Your task to perform on an android device: add a label to a message in the gmail app Image 0: 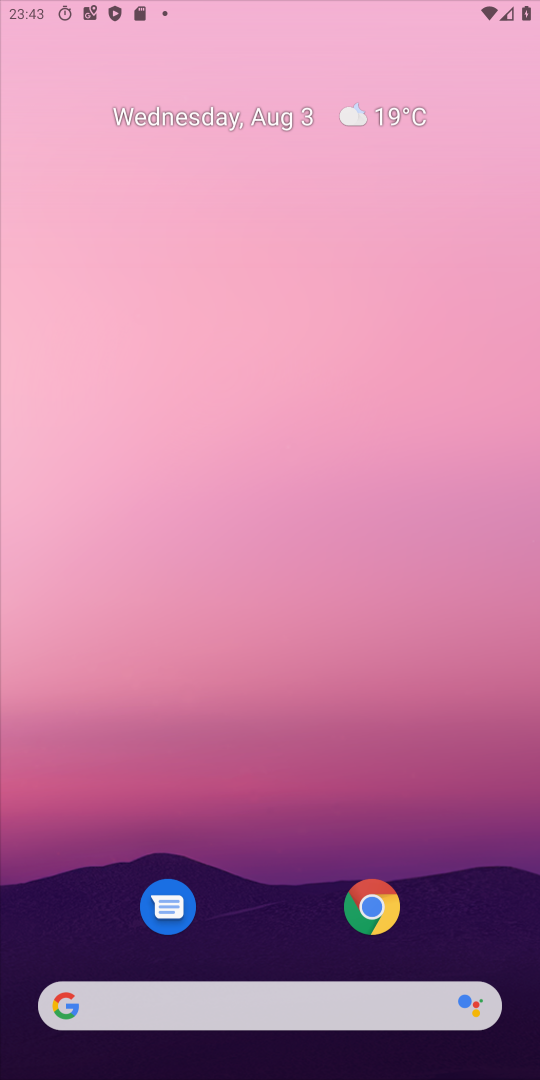
Step 0: press home button
Your task to perform on an android device: add a label to a message in the gmail app Image 1: 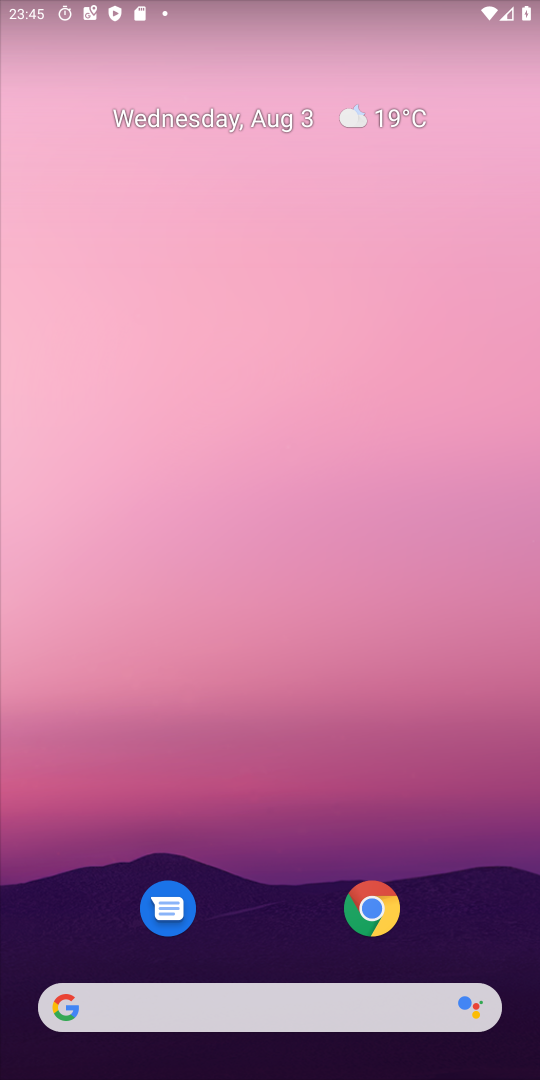
Step 1: drag from (405, 1026) to (304, 361)
Your task to perform on an android device: add a label to a message in the gmail app Image 2: 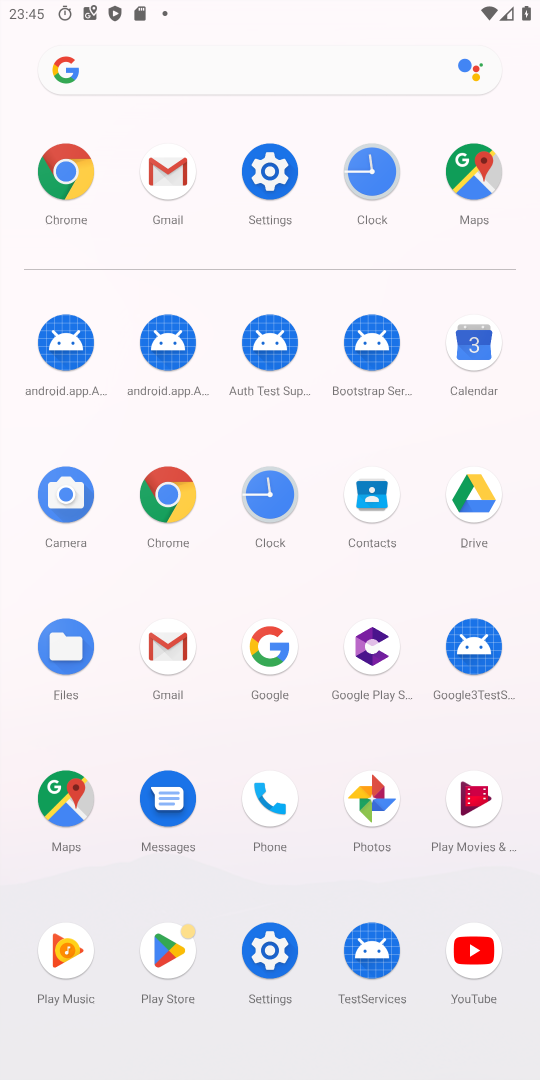
Step 2: click (139, 643)
Your task to perform on an android device: add a label to a message in the gmail app Image 3: 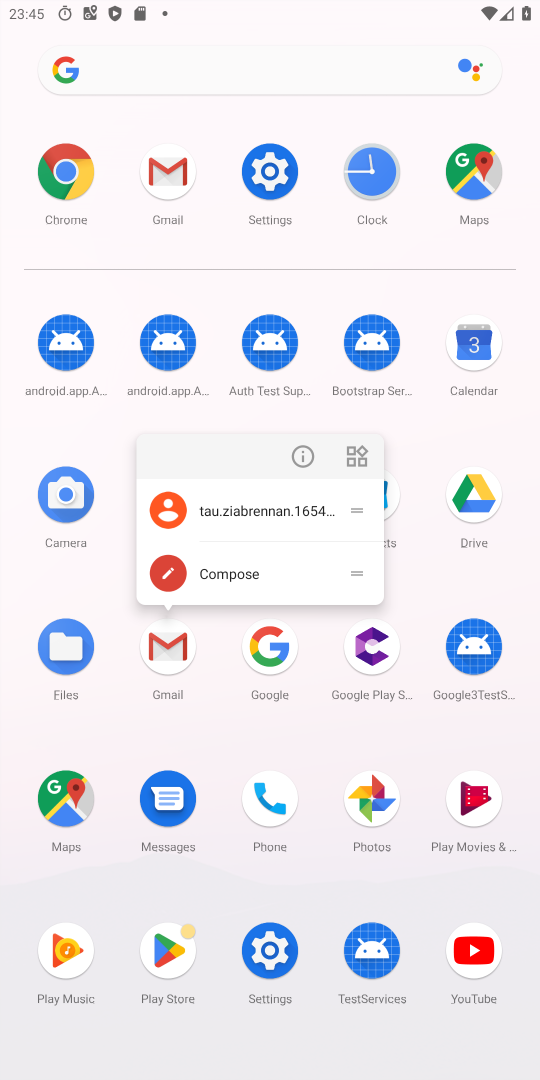
Step 3: click (151, 650)
Your task to perform on an android device: add a label to a message in the gmail app Image 4: 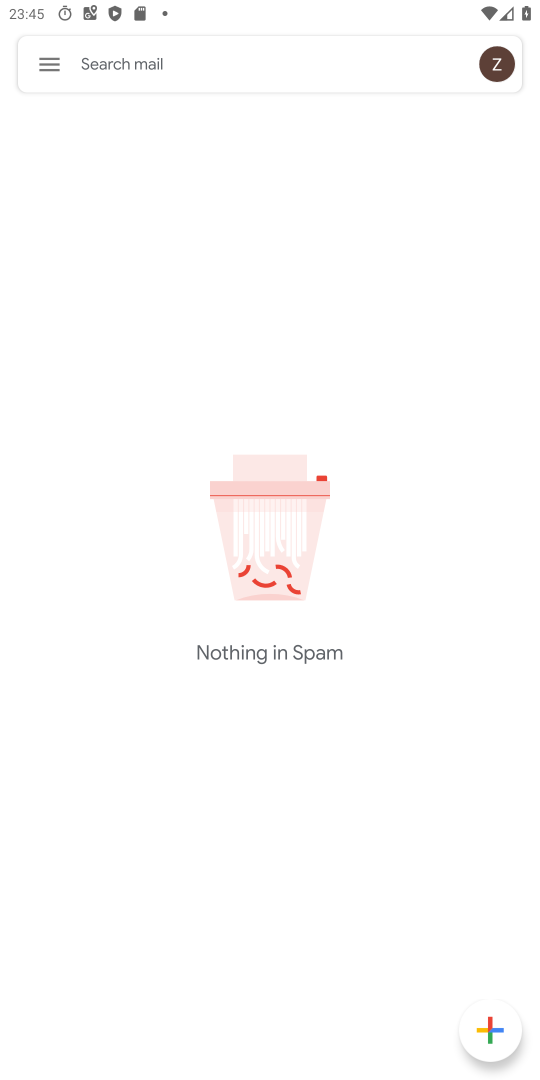
Step 4: click (31, 76)
Your task to perform on an android device: add a label to a message in the gmail app Image 5: 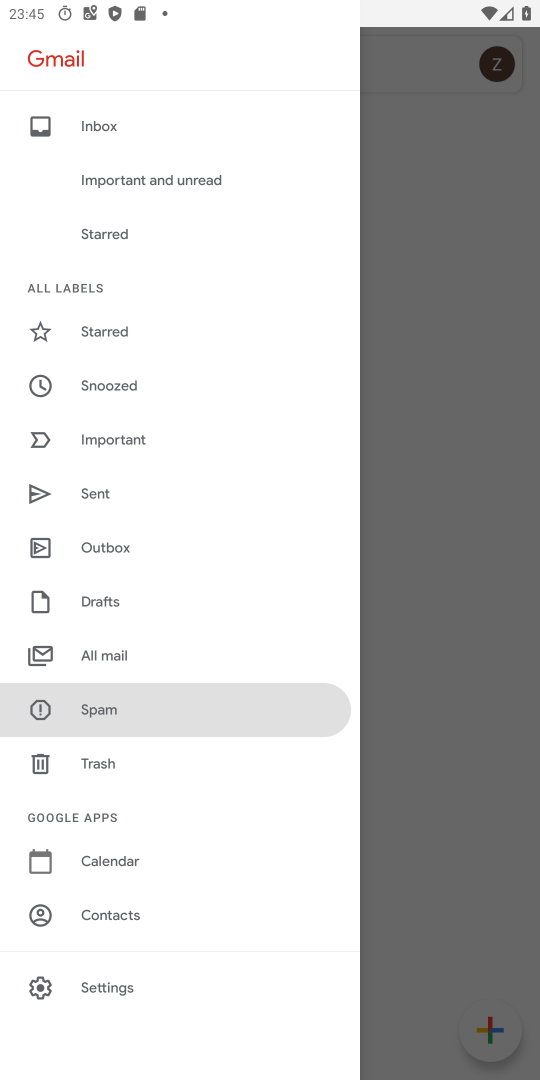
Step 5: click (115, 977)
Your task to perform on an android device: add a label to a message in the gmail app Image 6: 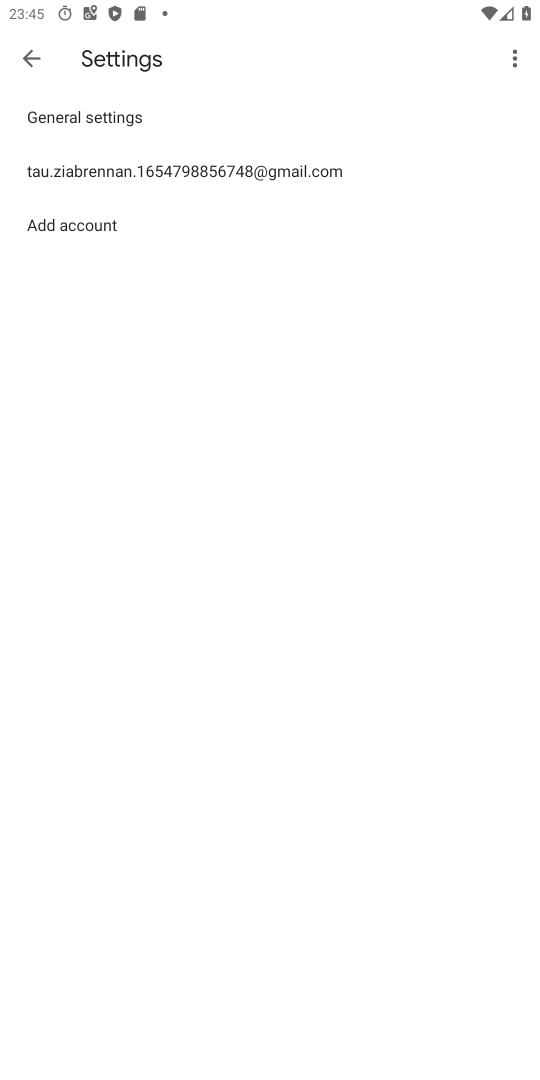
Step 6: click (120, 148)
Your task to perform on an android device: add a label to a message in the gmail app Image 7: 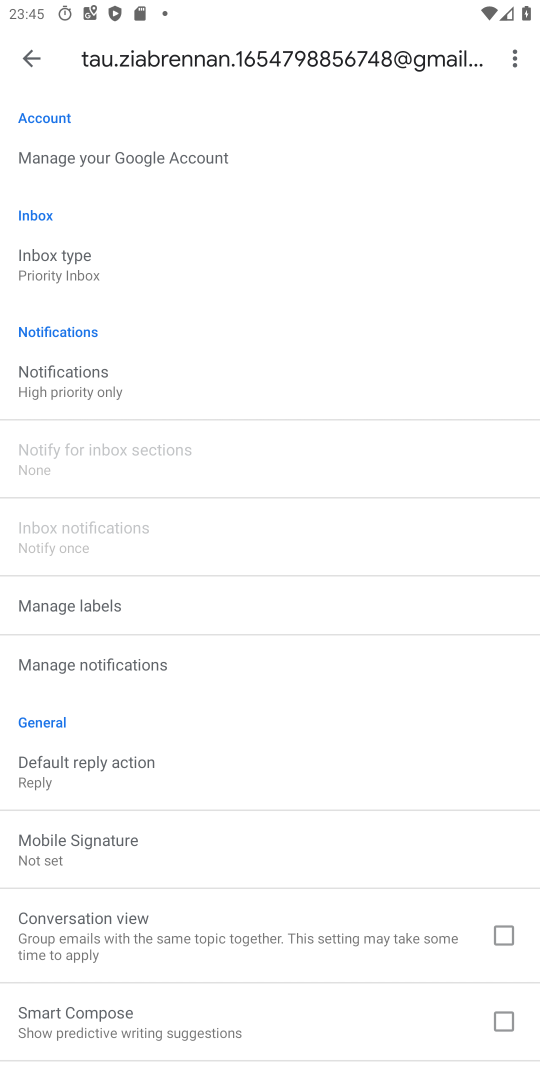
Step 7: click (140, 612)
Your task to perform on an android device: add a label to a message in the gmail app Image 8: 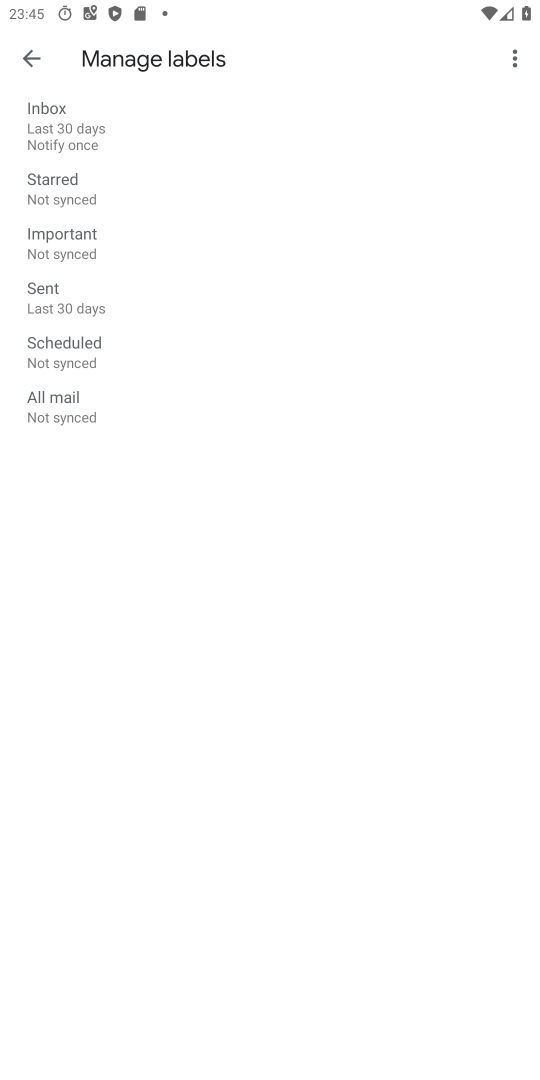
Step 8: click (14, 283)
Your task to perform on an android device: add a label to a message in the gmail app Image 9: 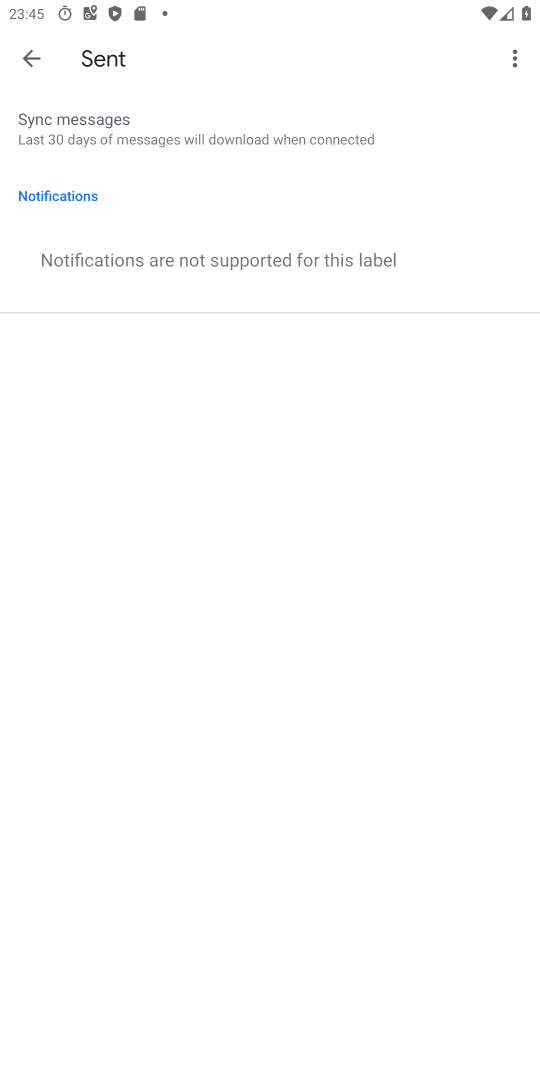
Step 9: task complete